Your task to perform on an android device: turn off airplane mode Image 0: 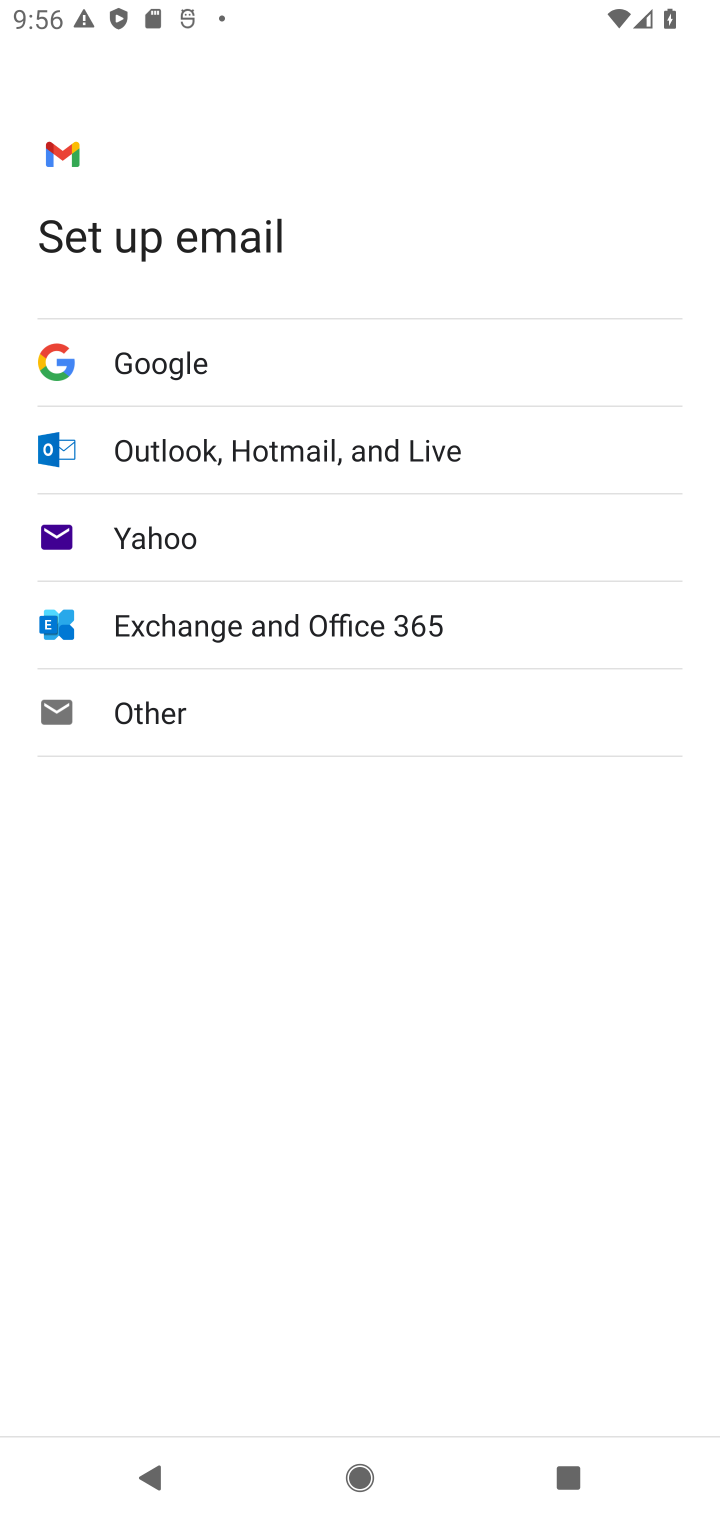
Step 0: drag from (385, 1059) to (442, 591)
Your task to perform on an android device: turn off airplane mode Image 1: 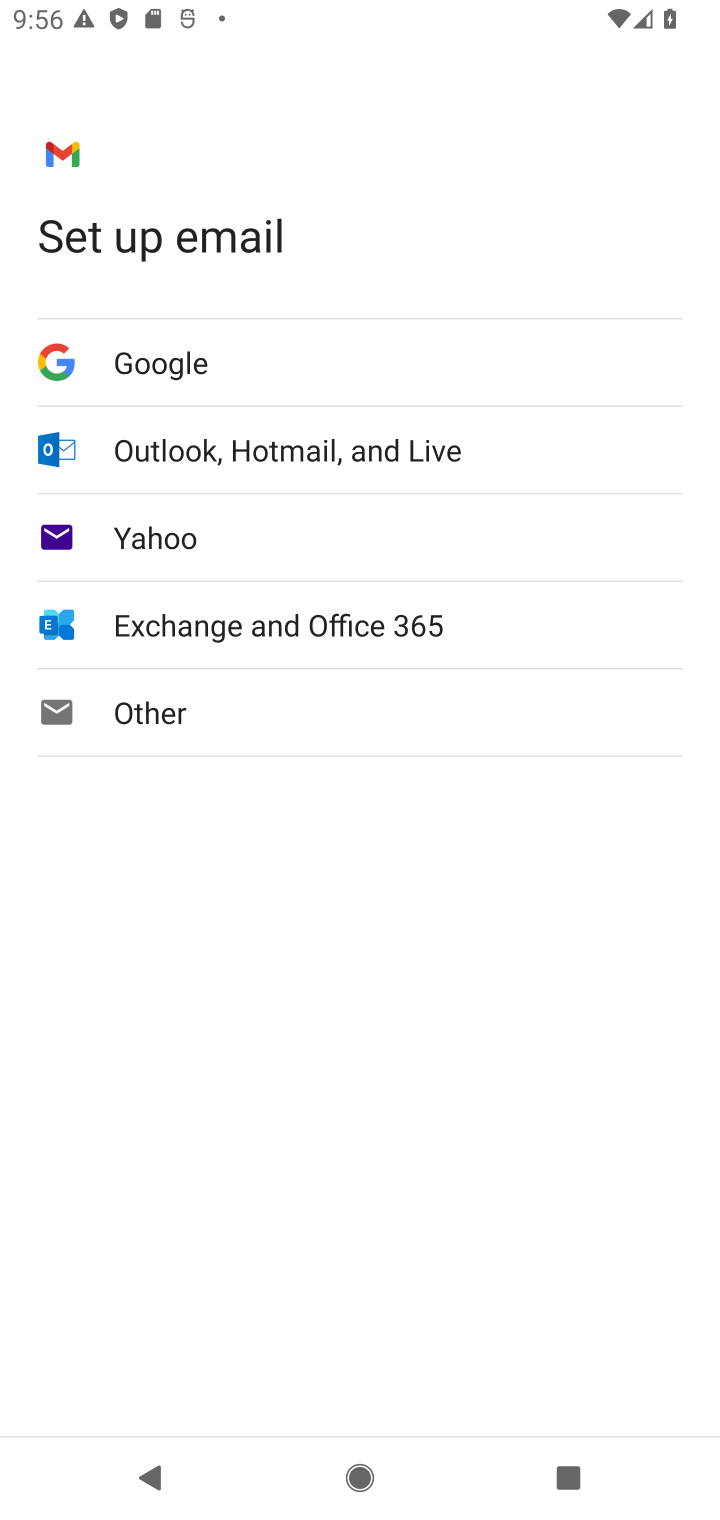
Step 1: press home button
Your task to perform on an android device: turn off airplane mode Image 2: 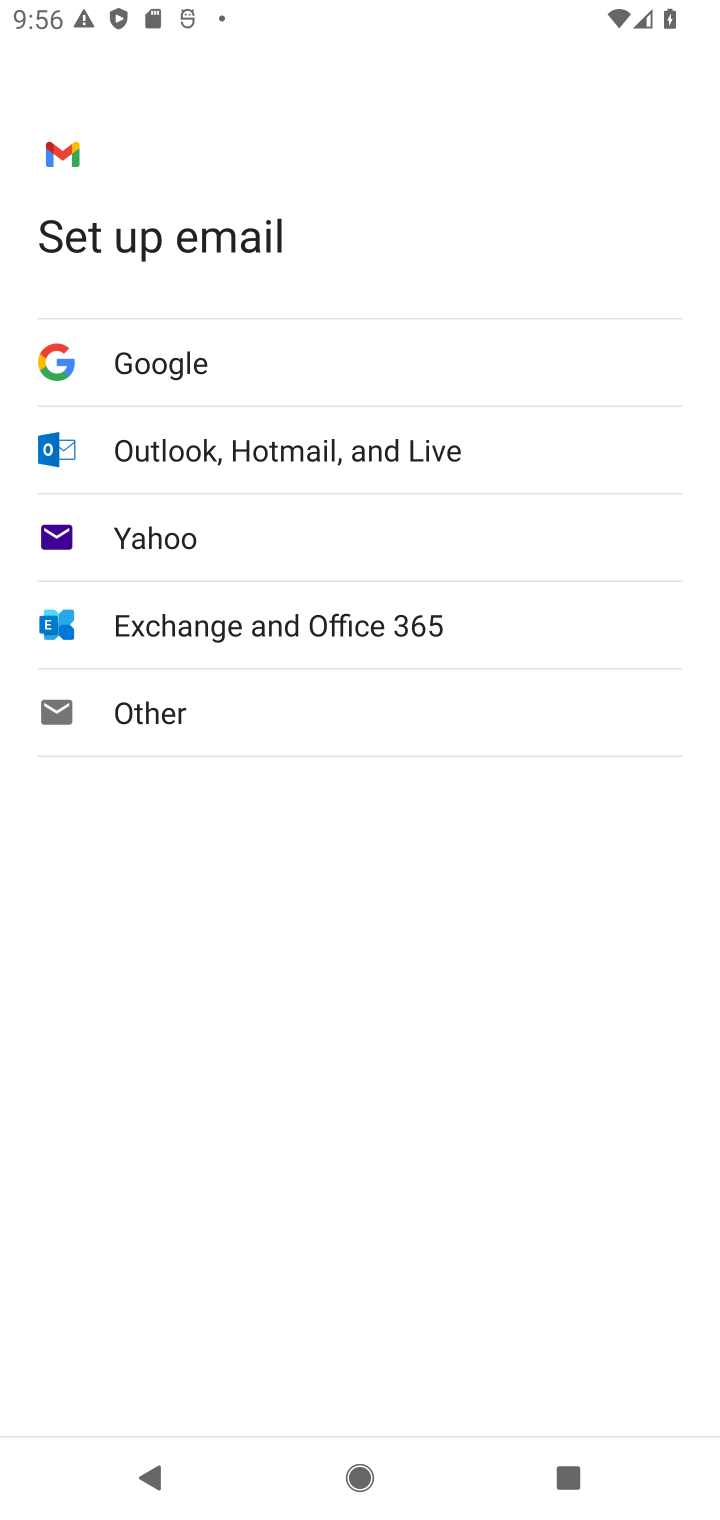
Step 2: press home button
Your task to perform on an android device: turn off airplane mode Image 3: 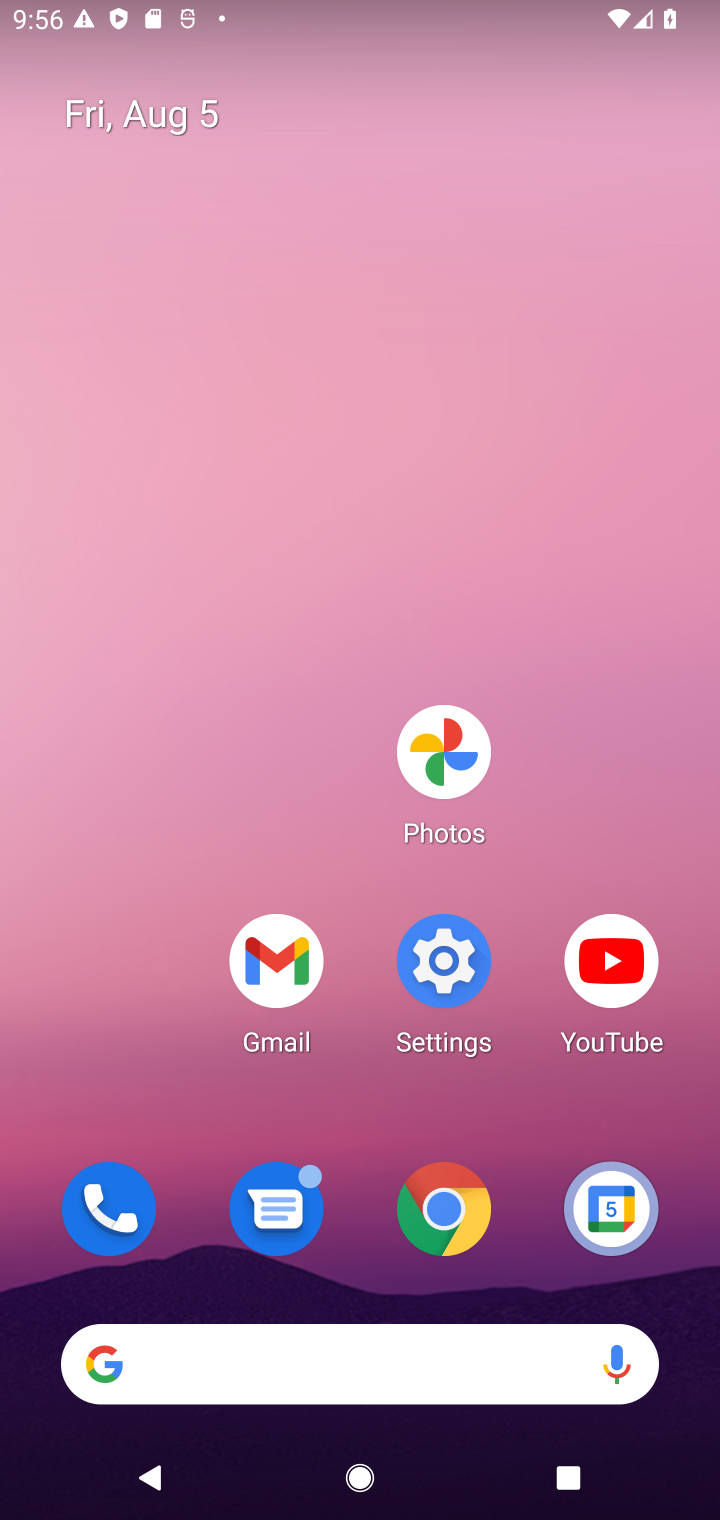
Step 3: drag from (402, 1175) to (516, 189)
Your task to perform on an android device: turn off airplane mode Image 4: 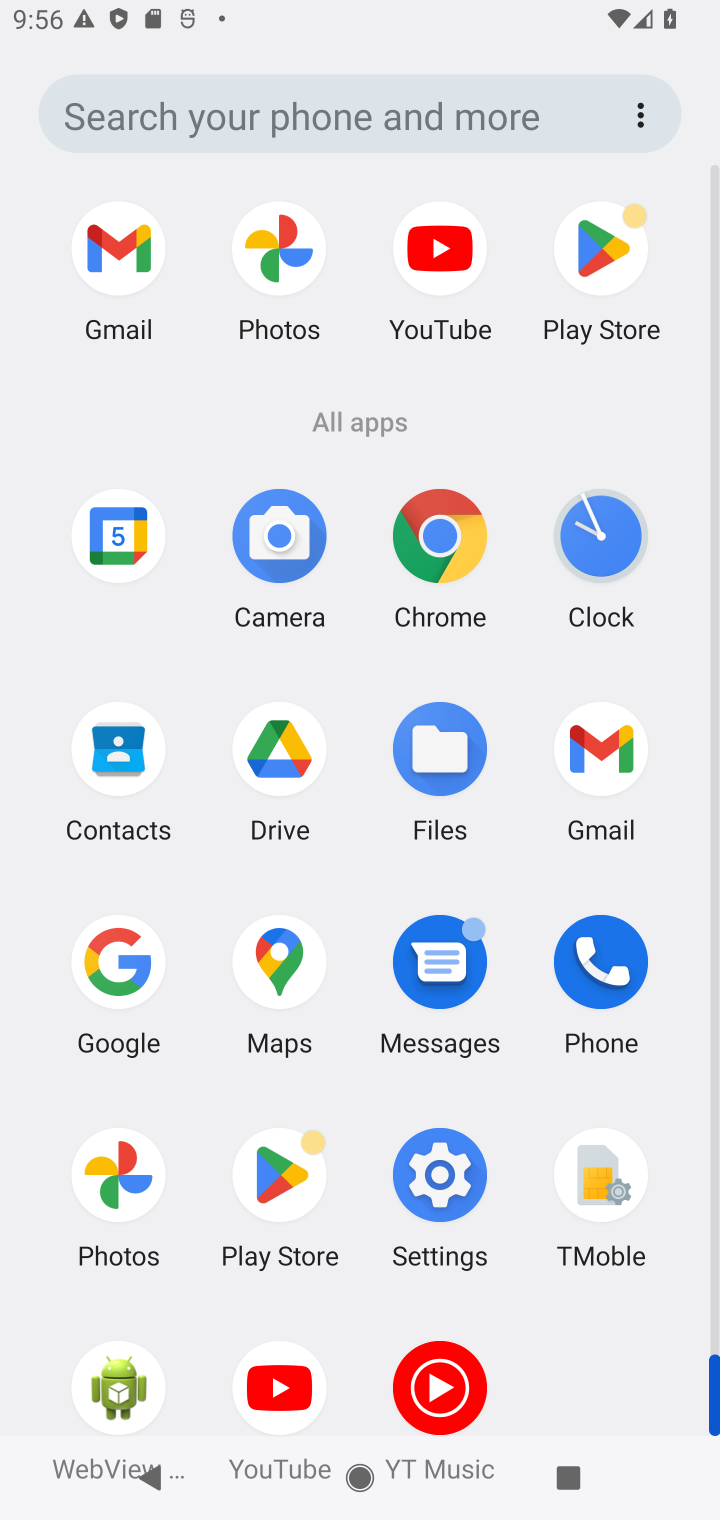
Step 4: click (422, 1184)
Your task to perform on an android device: turn off airplane mode Image 5: 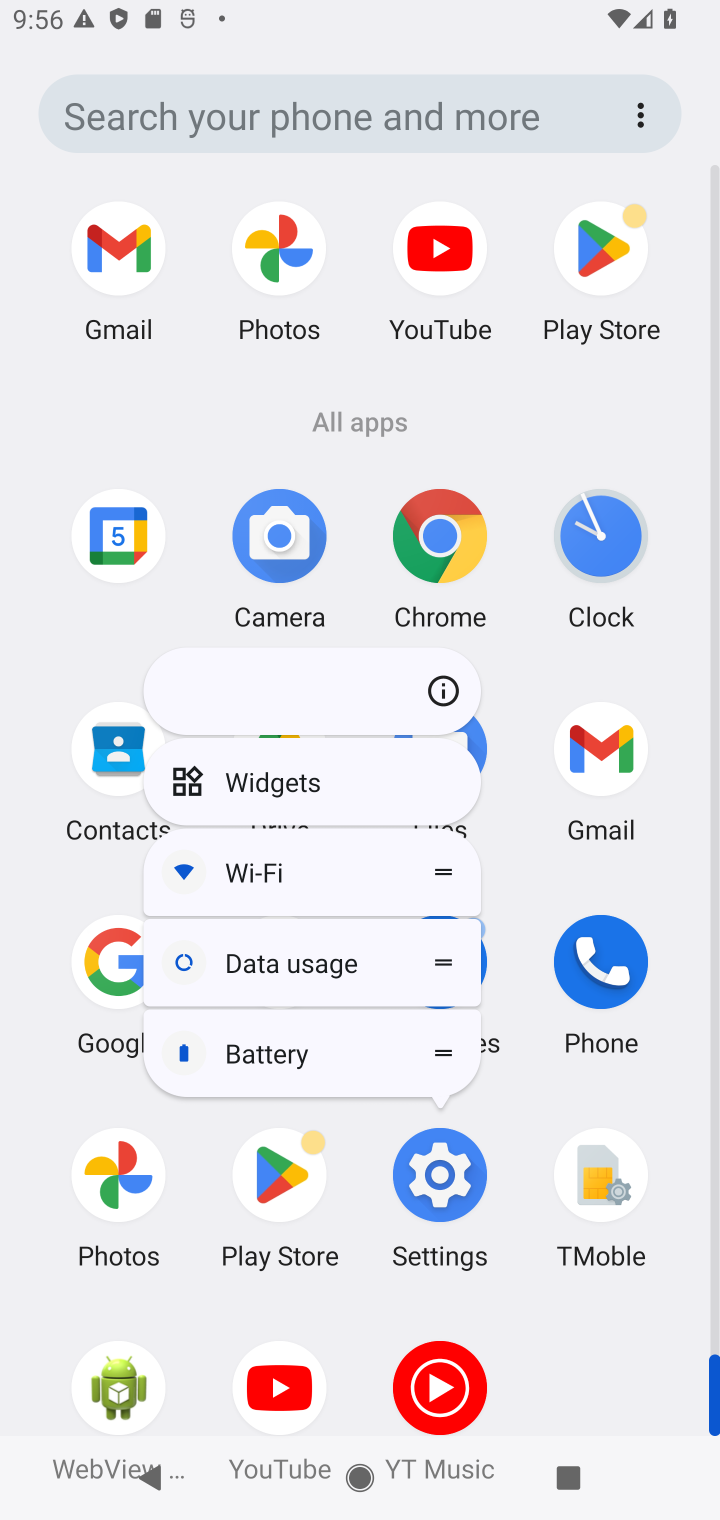
Step 5: click (438, 683)
Your task to perform on an android device: turn off airplane mode Image 6: 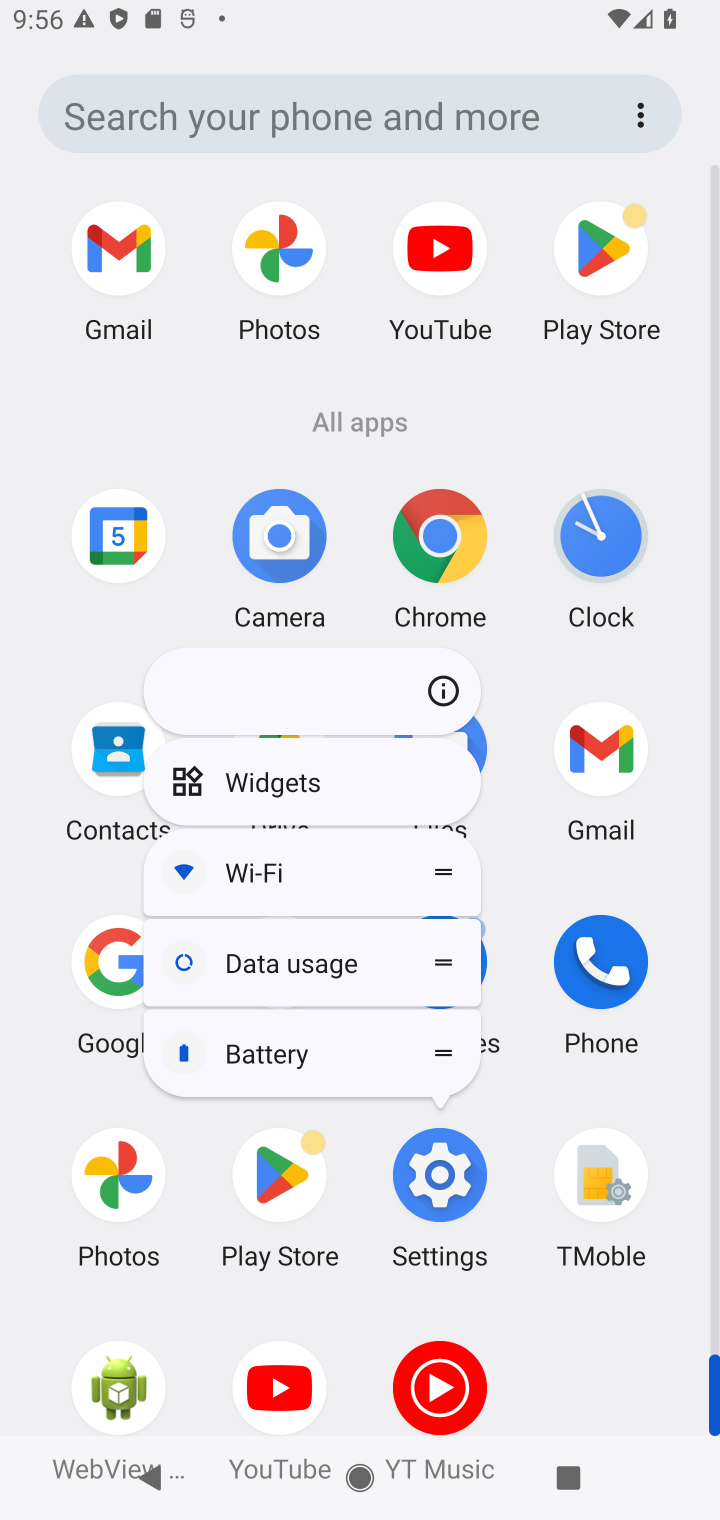
Step 6: click (428, 684)
Your task to perform on an android device: turn off airplane mode Image 7: 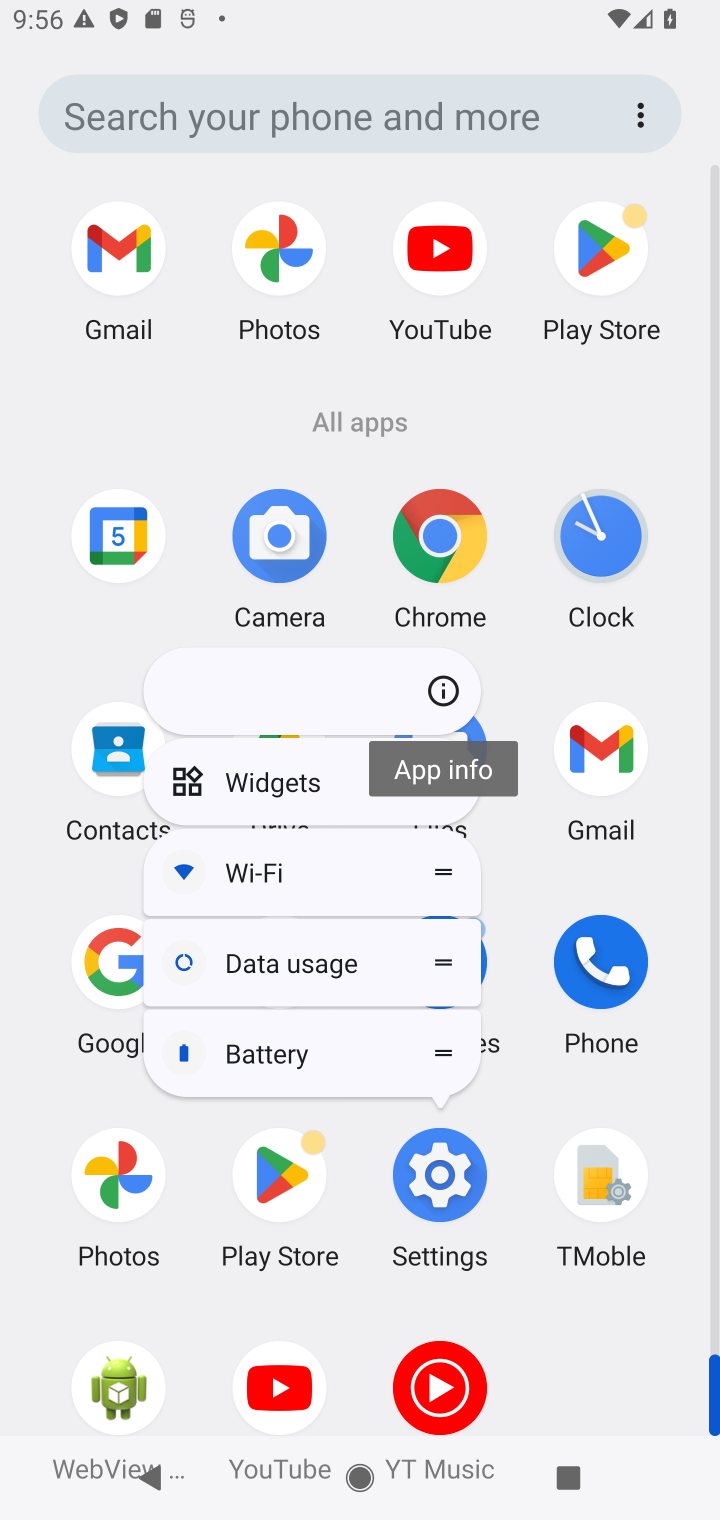
Step 7: click (428, 684)
Your task to perform on an android device: turn off airplane mode Image 8: 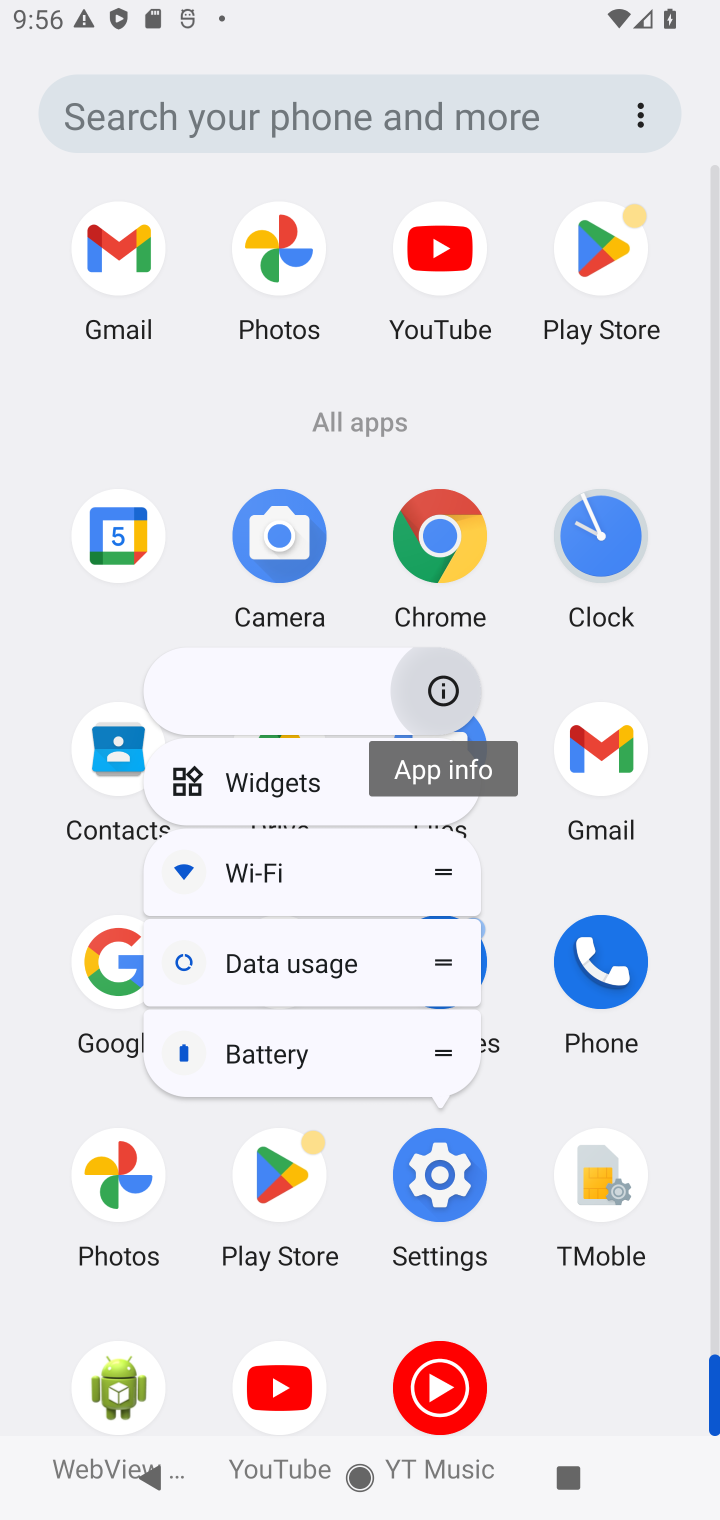
Step 8: click (428, 684)
Your task to perform on an android device: turn off airplane mode Image 9: 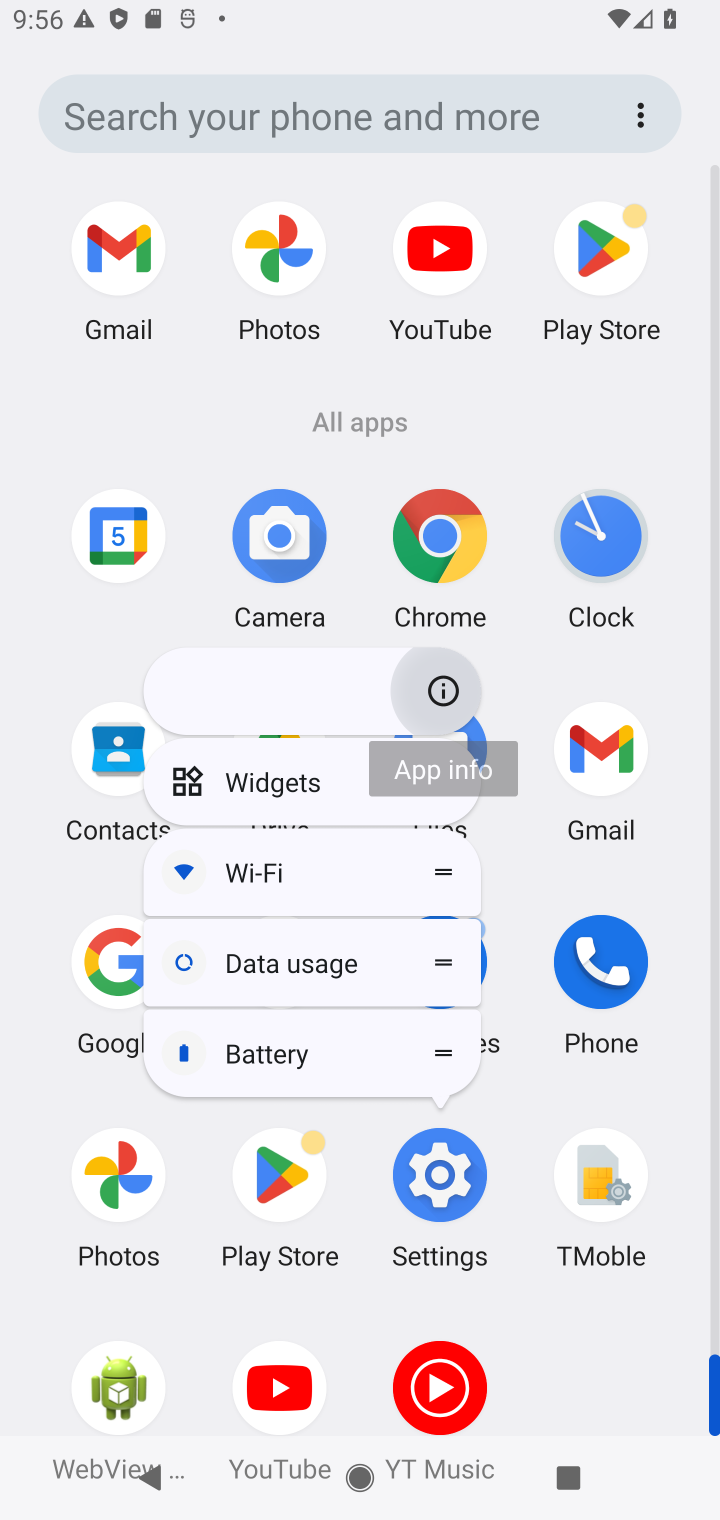
Step 9: click (432, 684)
Your task to perform on an android device: turn off airplane mode Image 10: 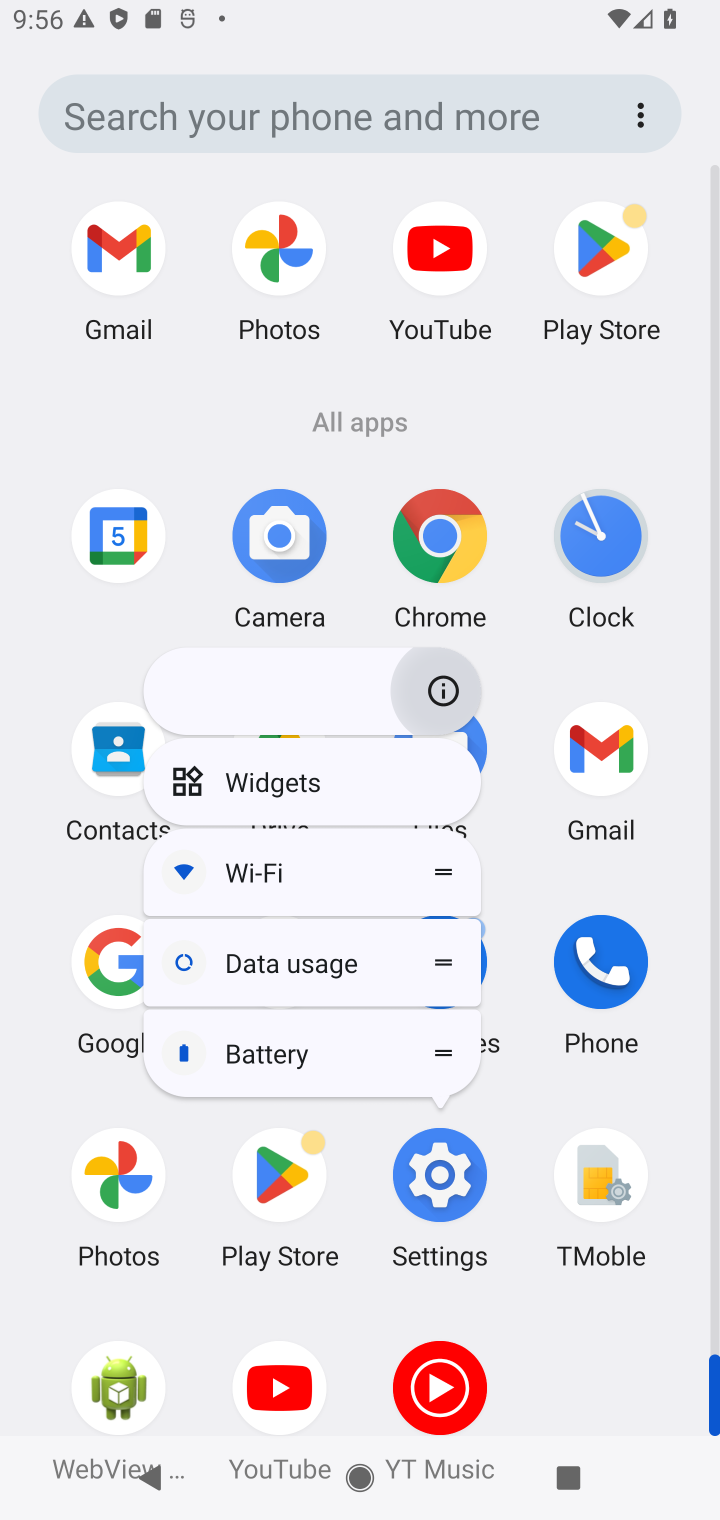
Step 10: click (432, 684)
Your task to perform on an android device: turn off airplane mode Image 11: 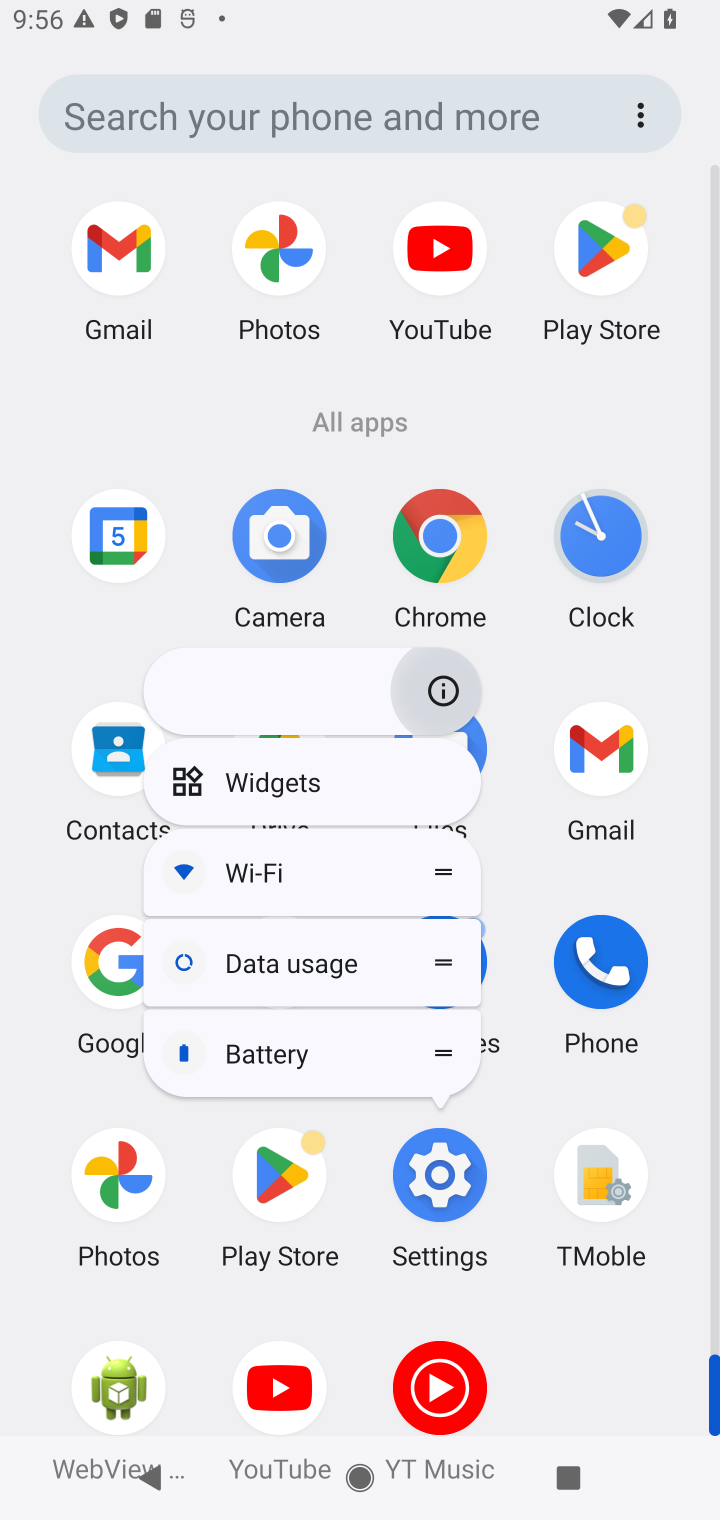
Step 11: click (417, 672)
Your task to perform on an android device: turn off airplane mode Image 12: 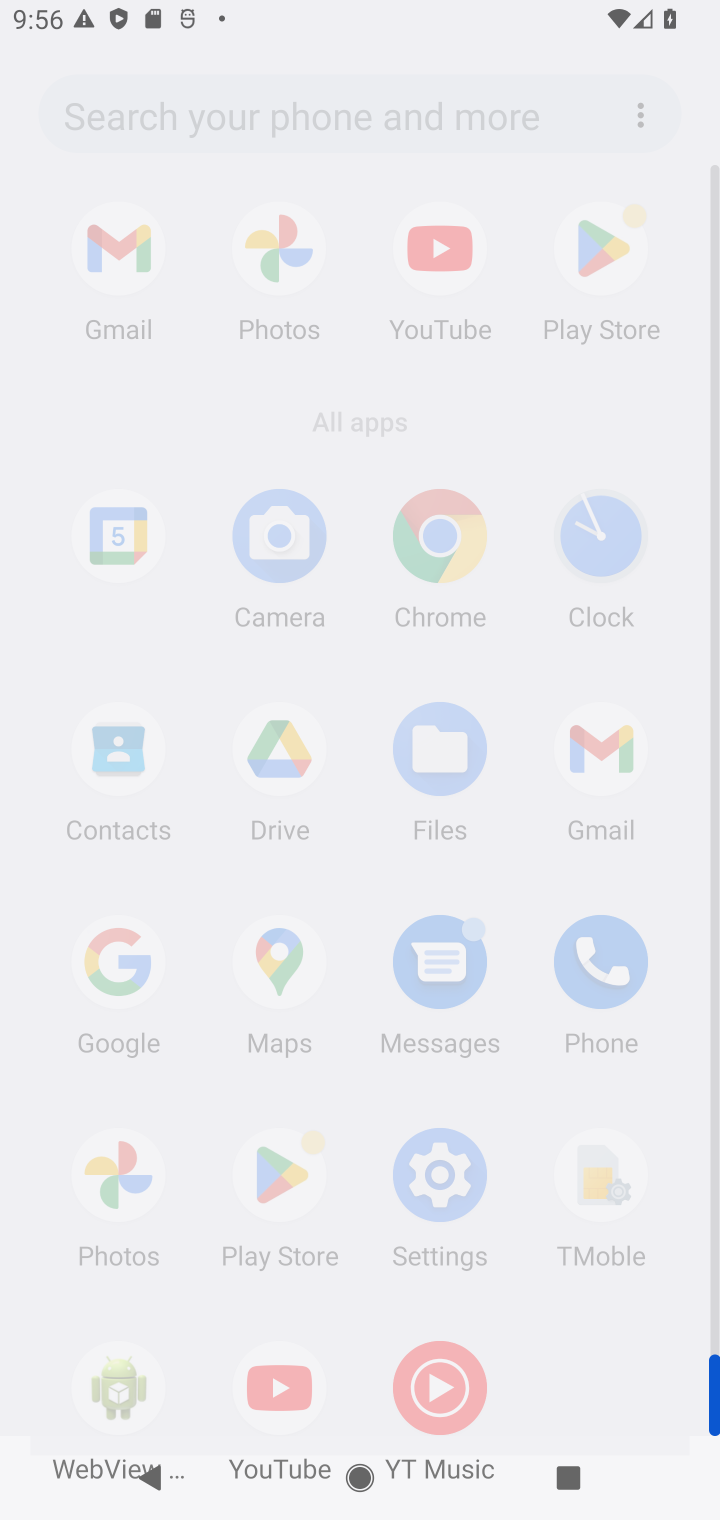
Step 12: click (425, 1164)
Your task to perform on an android device: turn off airplane mode Image 13: 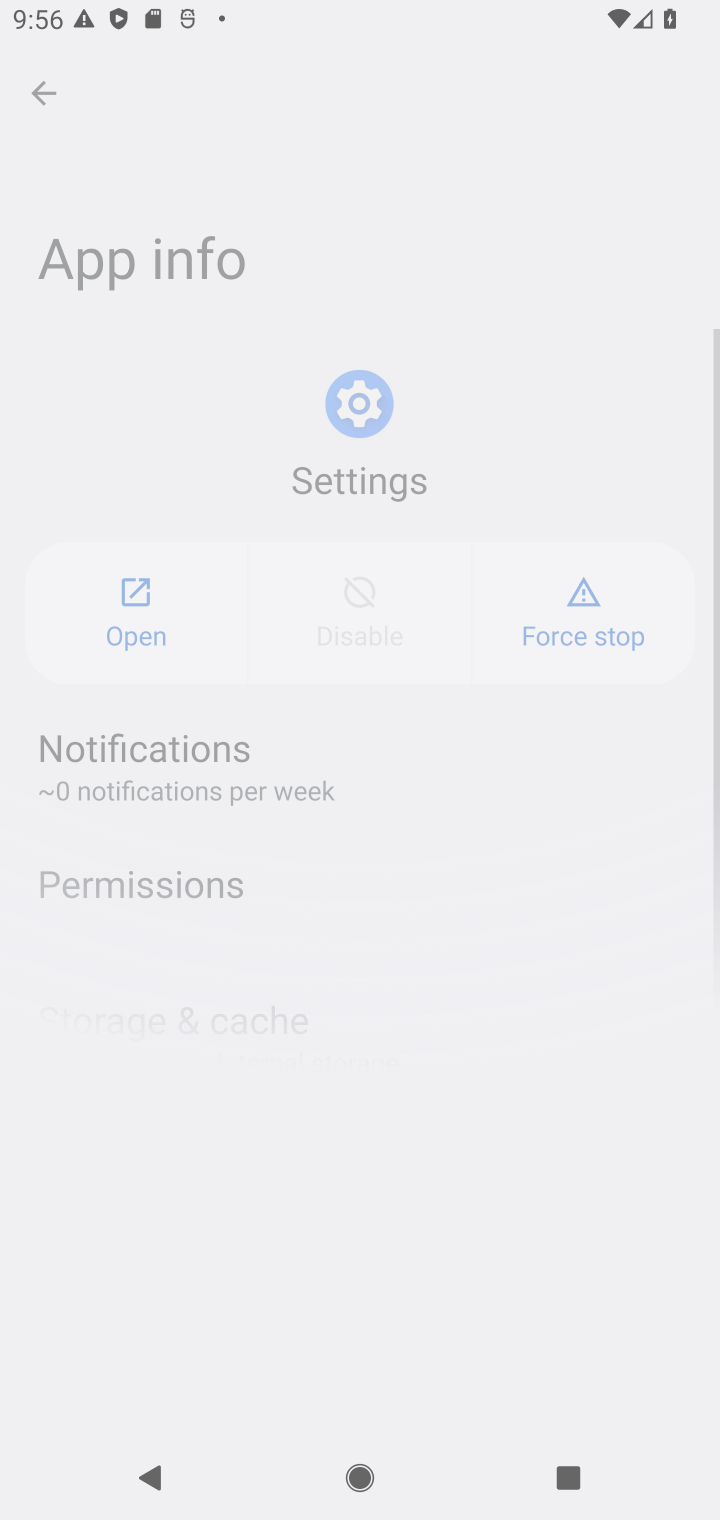
Step 13: click (424, 1160)
Your task to perform on an android device: turn off airplane mode Image 14: 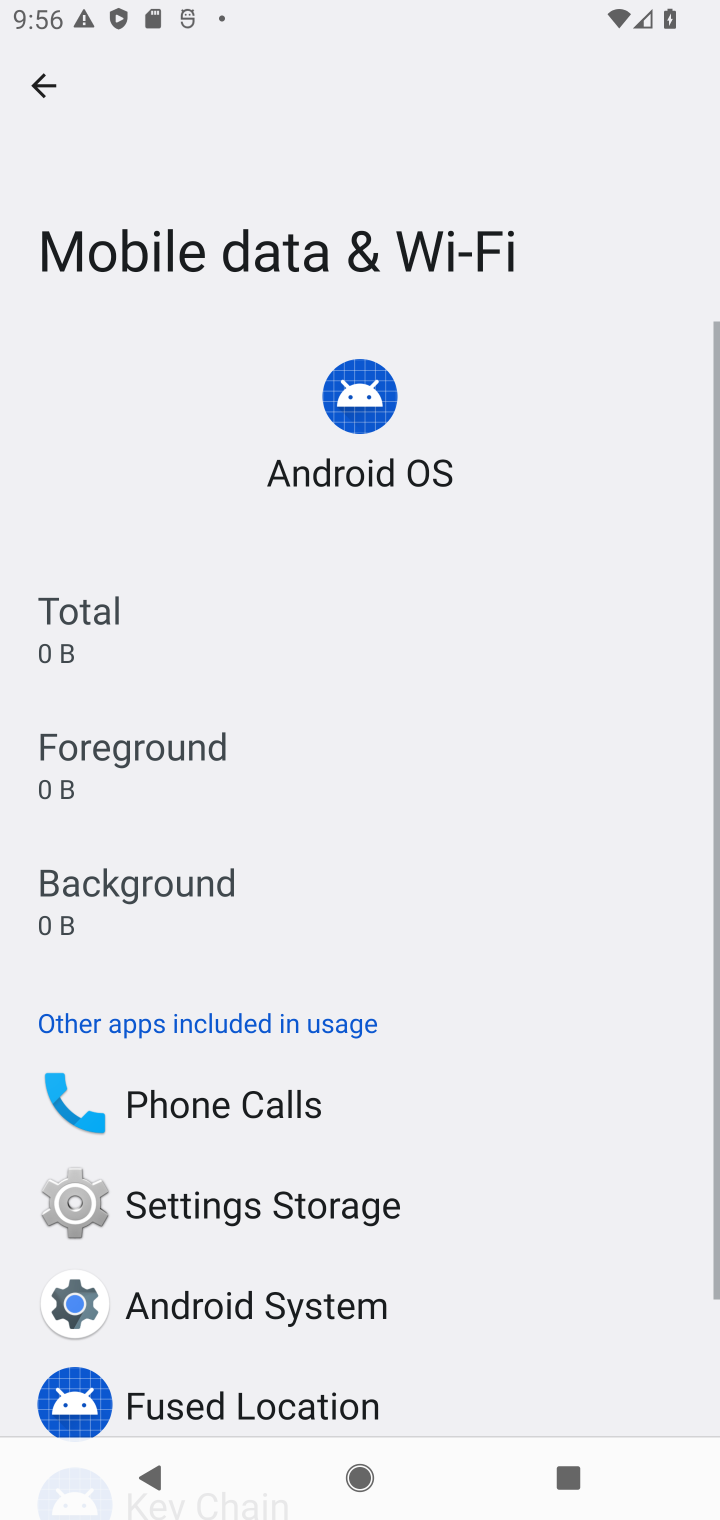
Step 14: press back button
Your task to perform on an android device: turn off airplane mode Image 15: 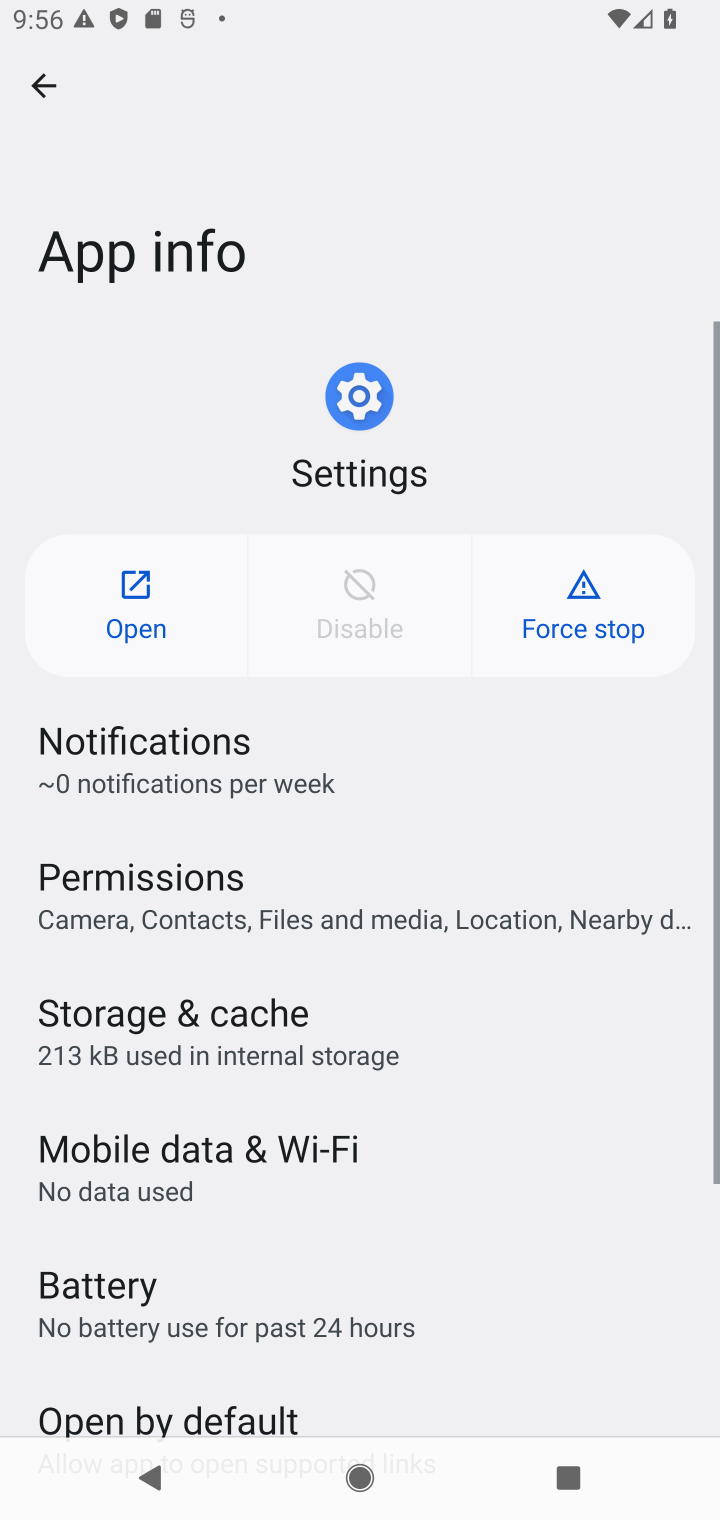
Step 15: click (156, 588)
Your task to perform on an android device: turn off airplane mode Image 16: 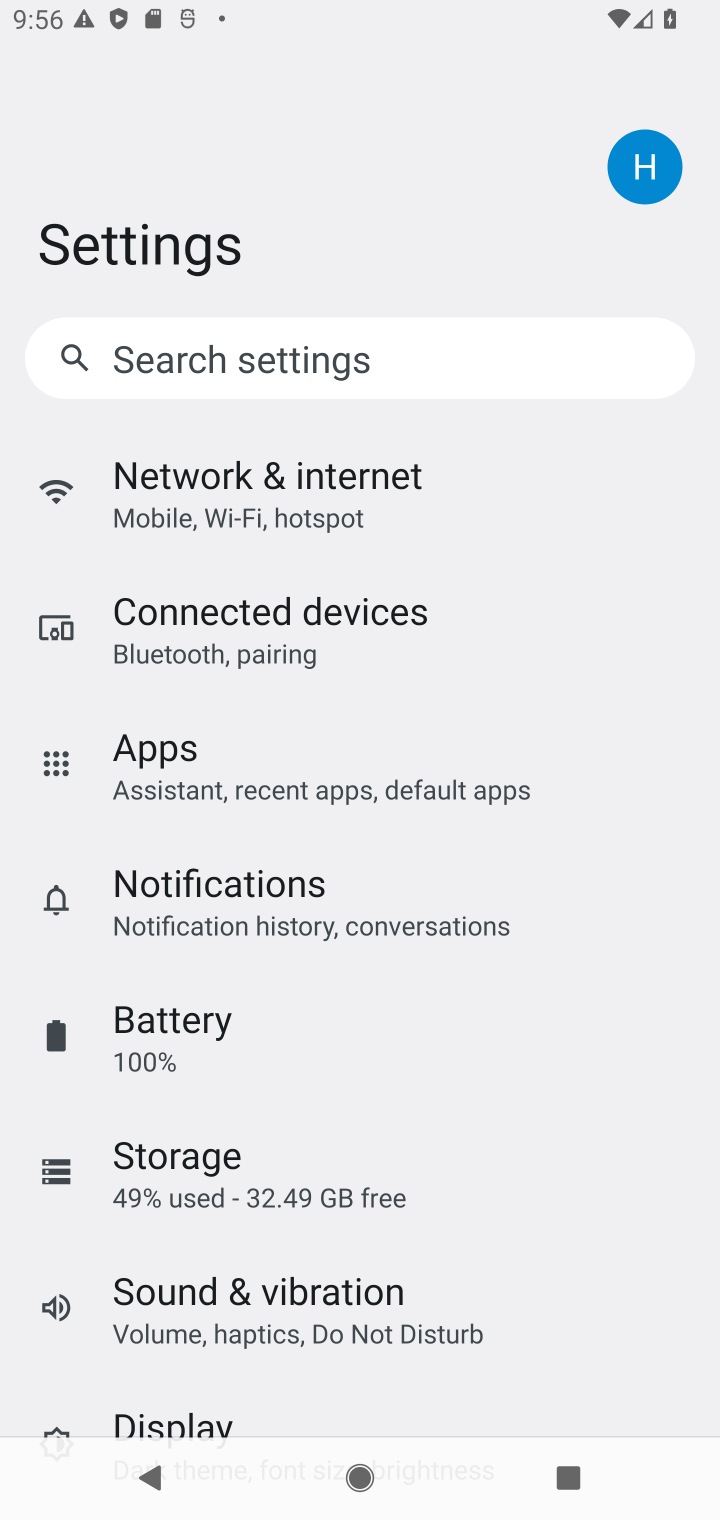
Step 16: click (257, 501)
Your task to perform on an android device: turn off airplane mode Image 17: 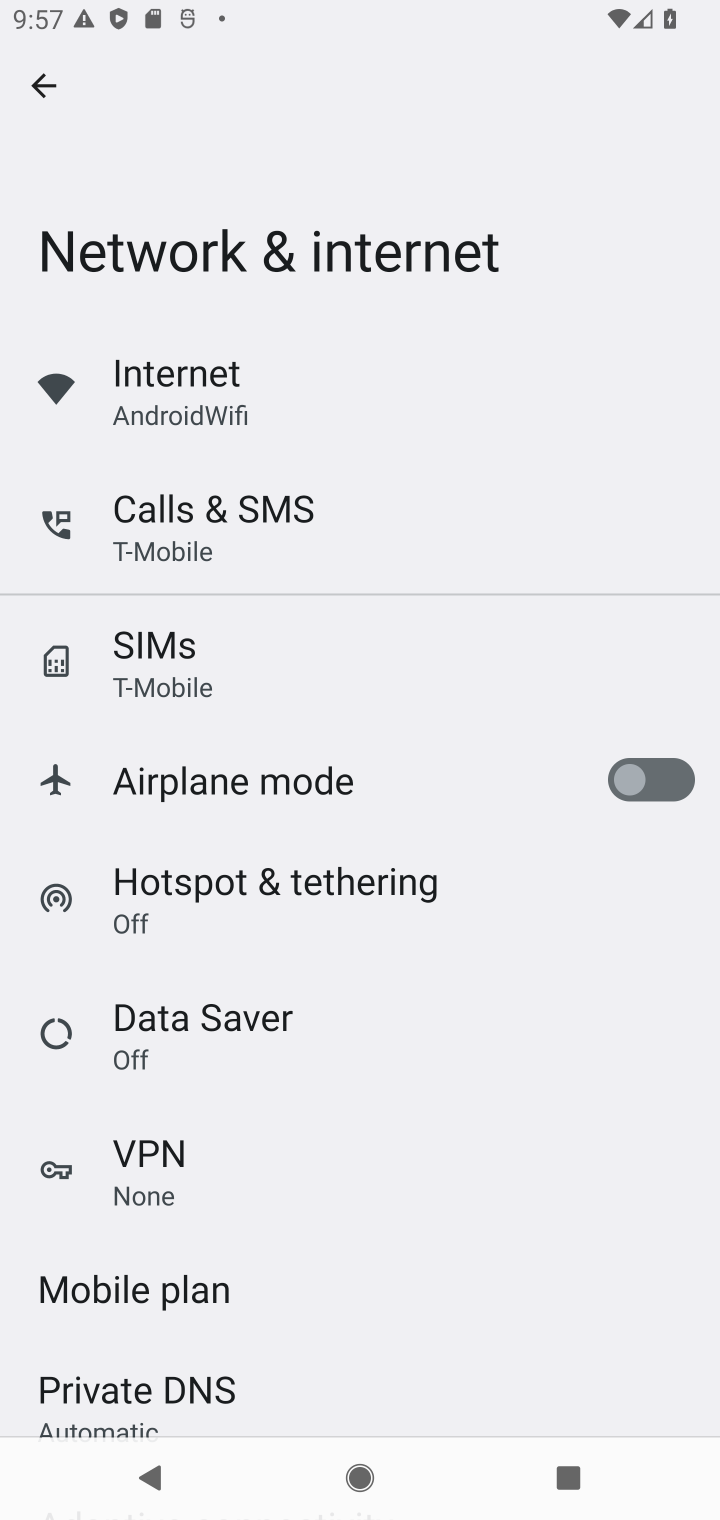
Step 17: task complete